Your task to perform on an android device: change the clock display to analog Image 0: 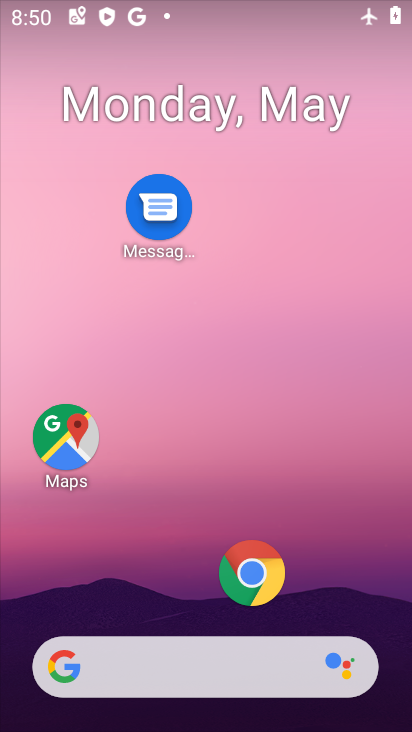
Step 0: drag from (186, 647) to (264, 148)
Your task to perform on an android device: change the clock display to analog Image 1: 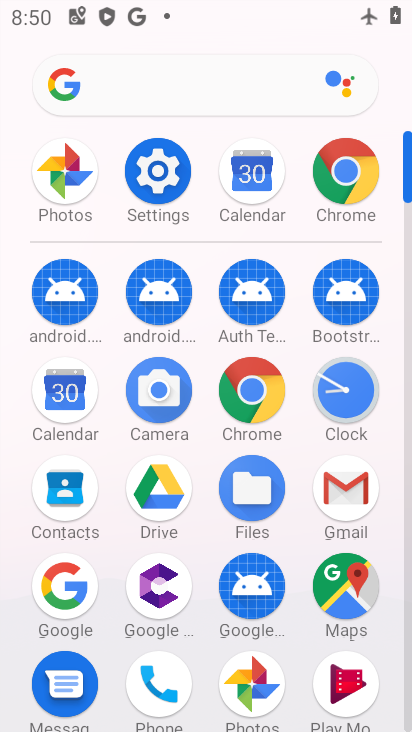
Step 1: click (339, 410)
Your task to perform on an android device: change the clock display to analog Image 2: 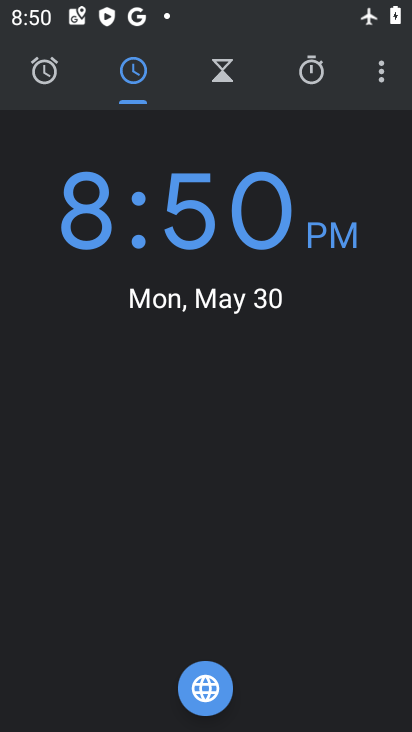
Step 2: click (379, 72)
Your task to perform on an android device: change the clock display to analog Image 3: 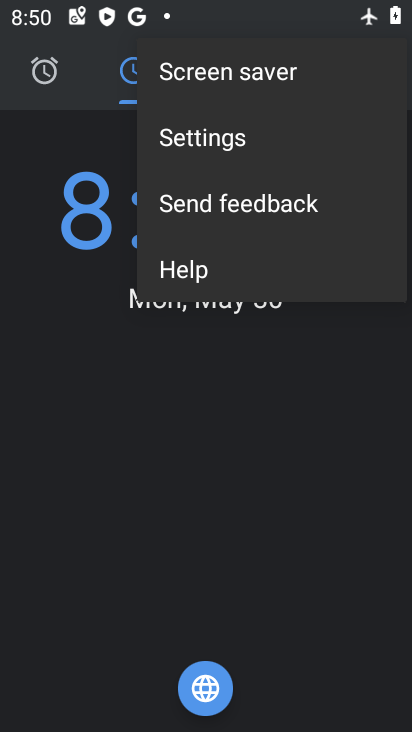
Step 3: click (255, 146)
Your task to perform on an android device: change the clock display to analog Image 4: 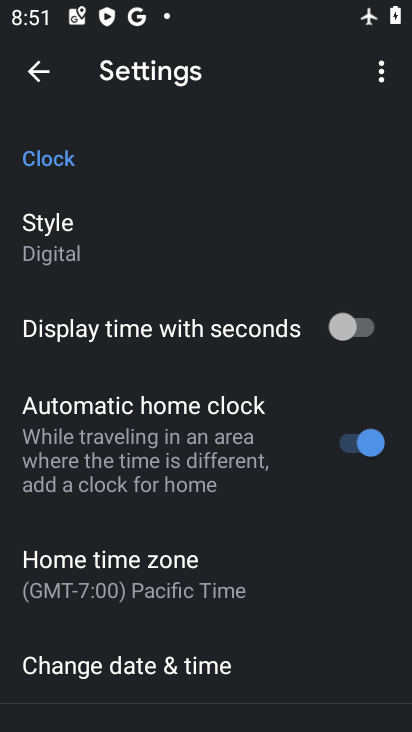
Step 4: click (114, 251)
Your task to perform on an android device: change the clock display to analog Image 5: 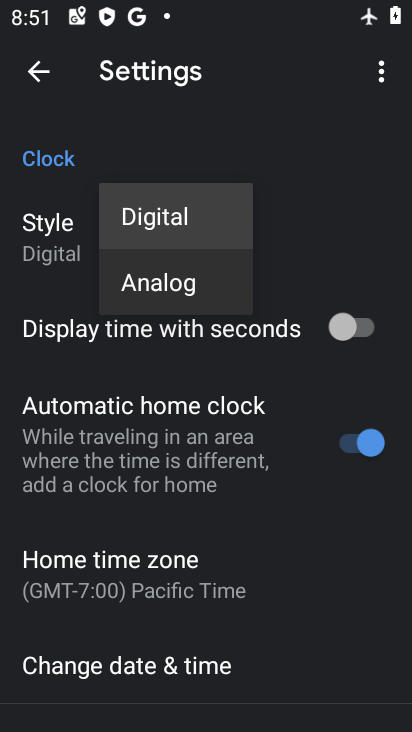
Step 5: click (149, 286)
Your task to perform on an android device: change the clock display to analog Image 6: 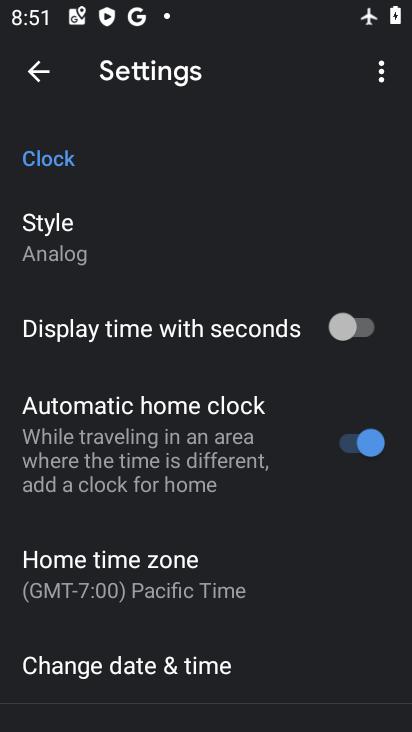
Step 6: task complete